Your task to perform on an android device: see creations saved in the google photos Image 0: 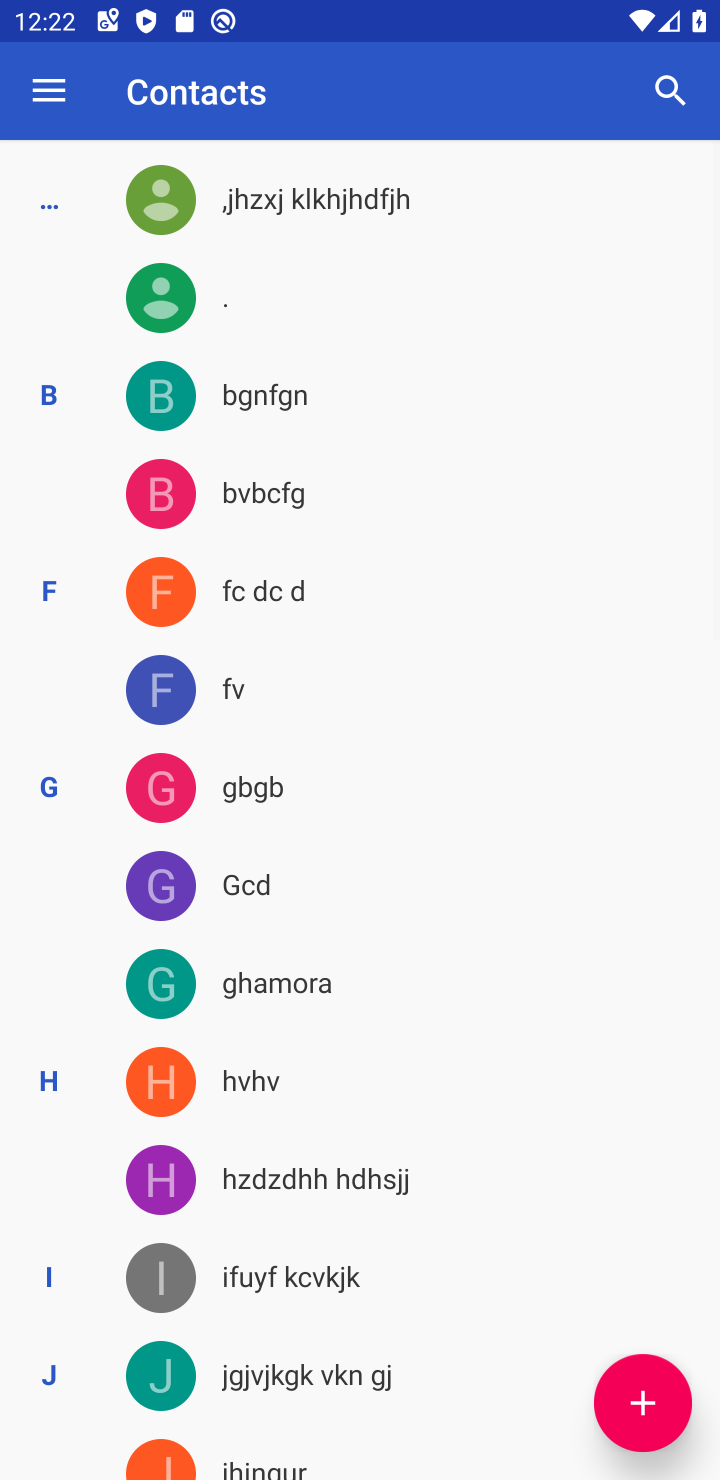
Step 0: press home button
Your task to perform on an android device: see creations saved in the google photos Image 1: 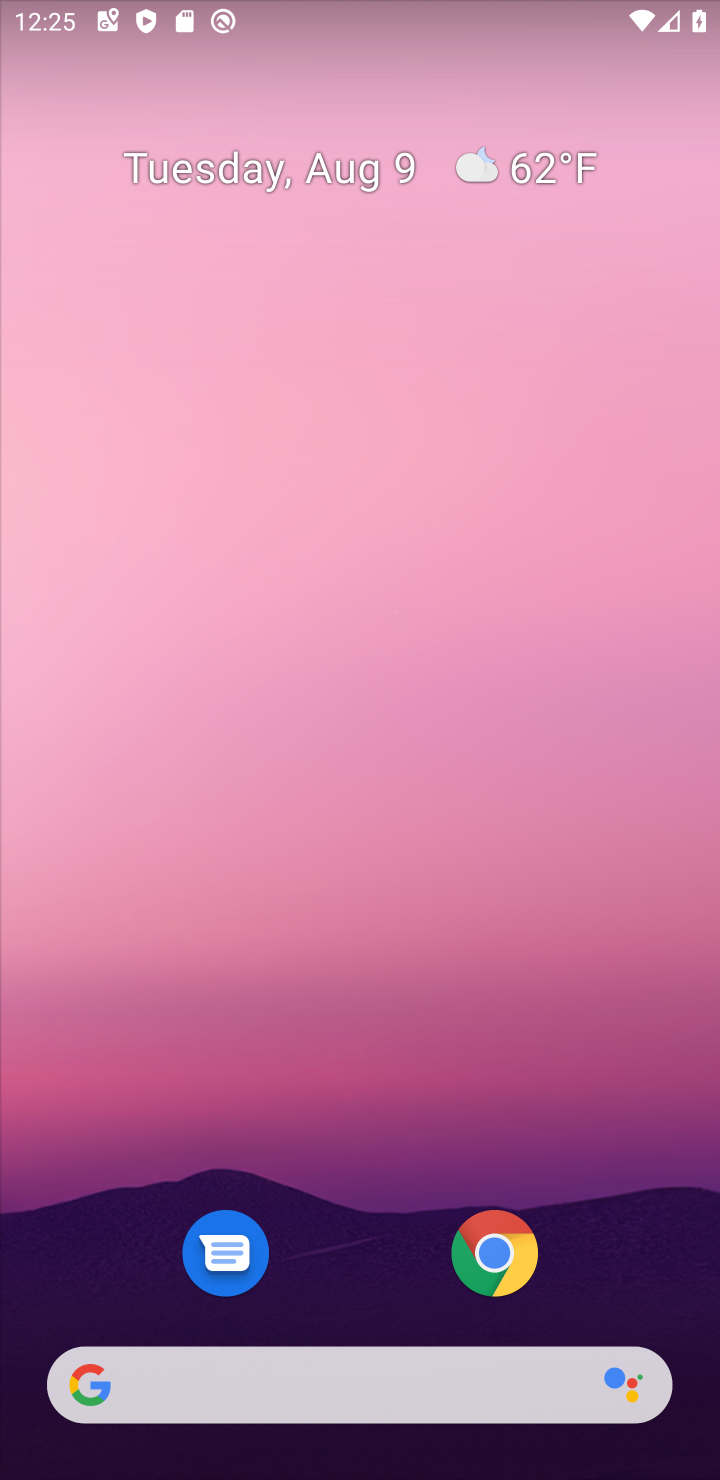
Step 1: drag from (656, 1267) to (395, 10)
Your task to perform on an android device: see creations saved in the google photos Image 2: 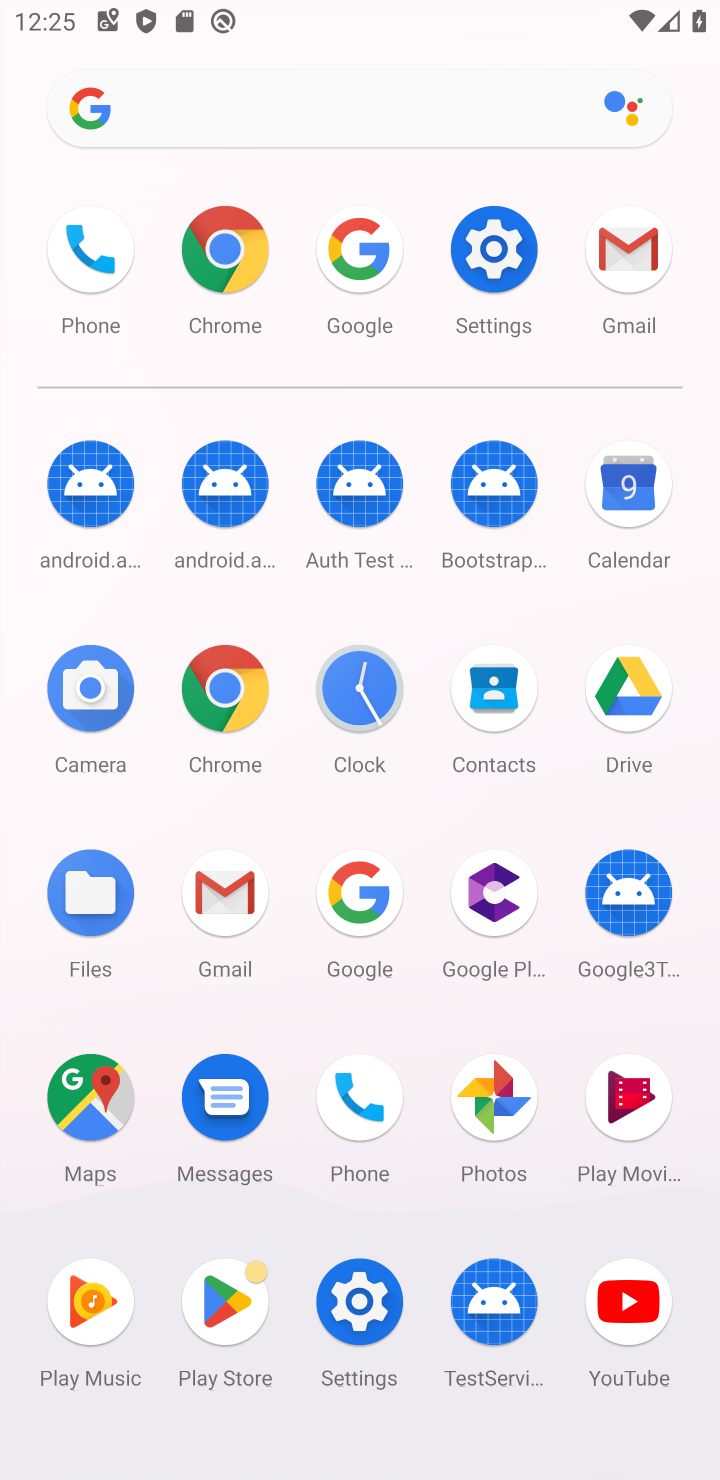
Step 2: click (493, 1079)
Your task to perform on an android device: see creations saved in the google photos Image 3: 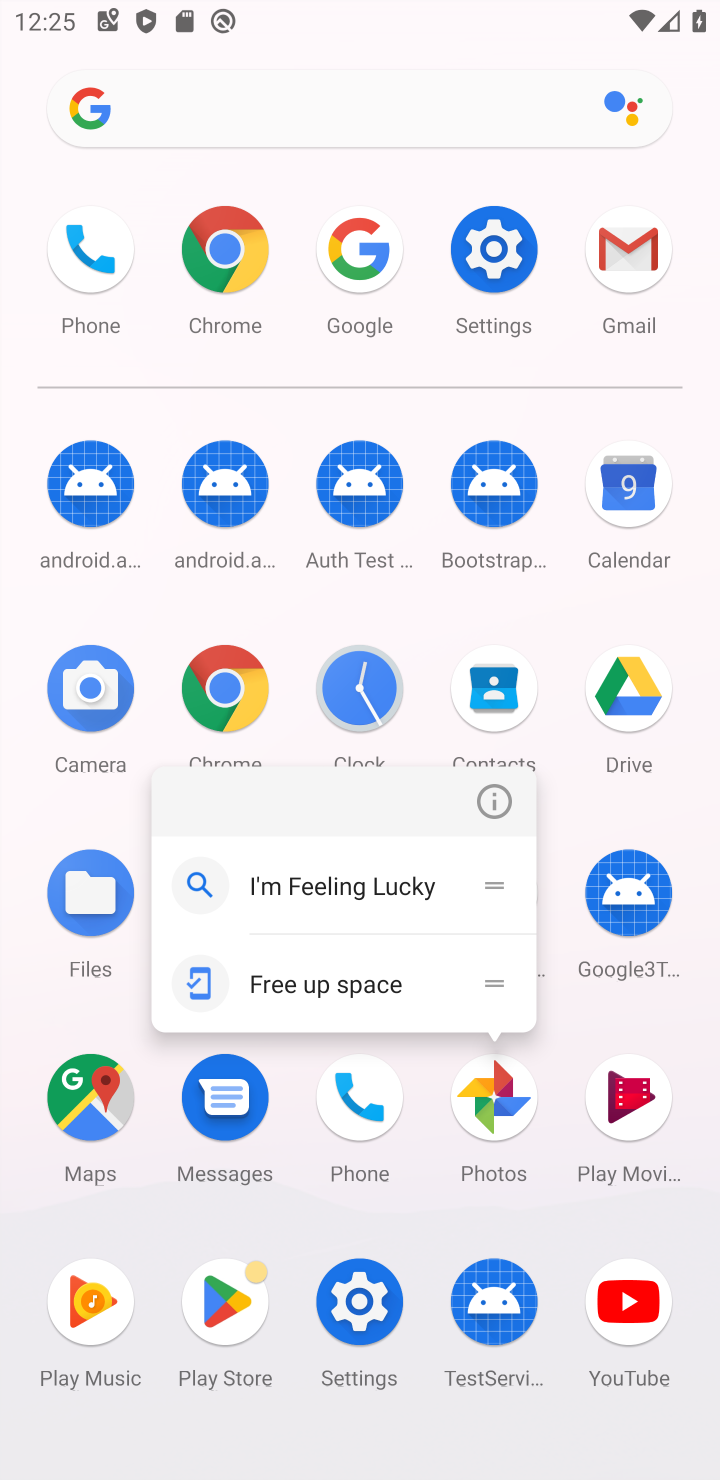
Step 3: click (471, 1082)
Your task to perform on an android device: see creations saved in the google photos Image 4: 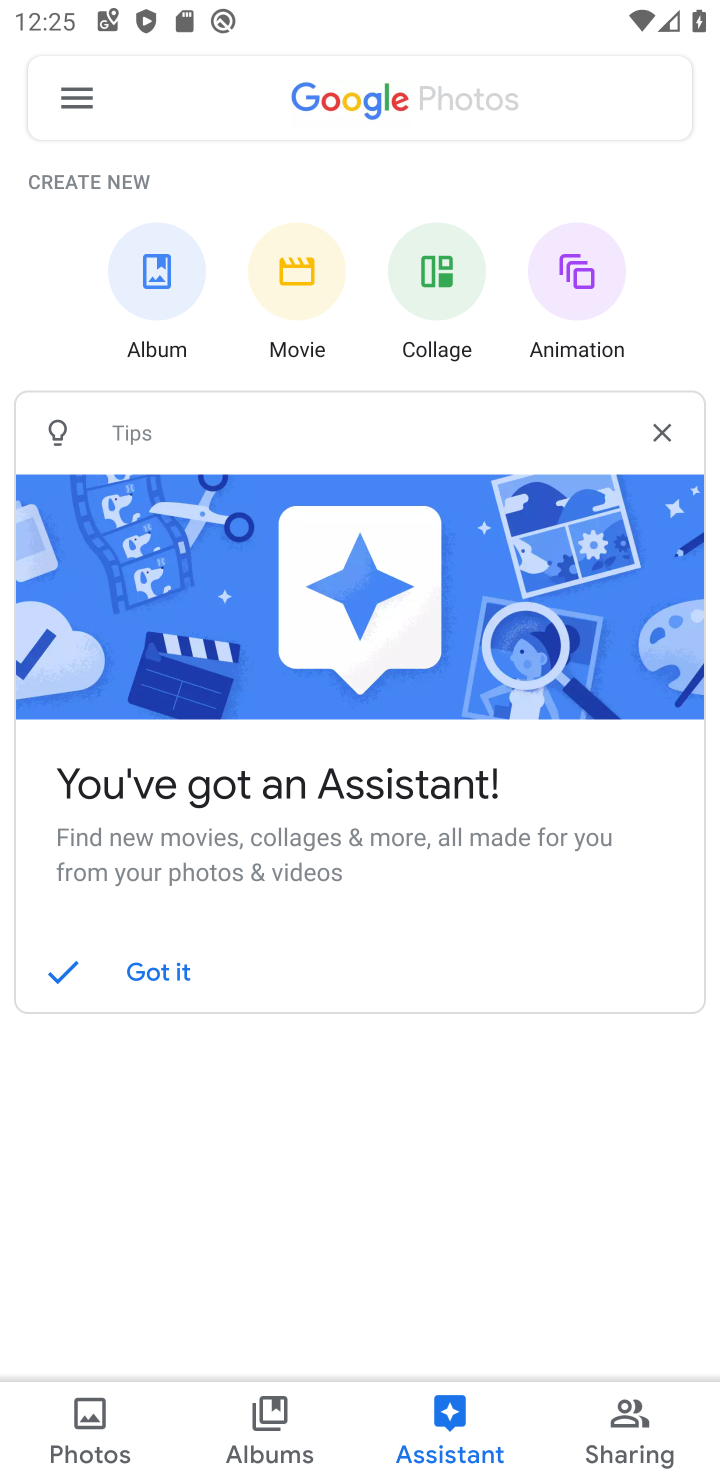
Step 4: click (284, 99)
Your task to perform on an android device: see creations saved in the google photos Image 5: 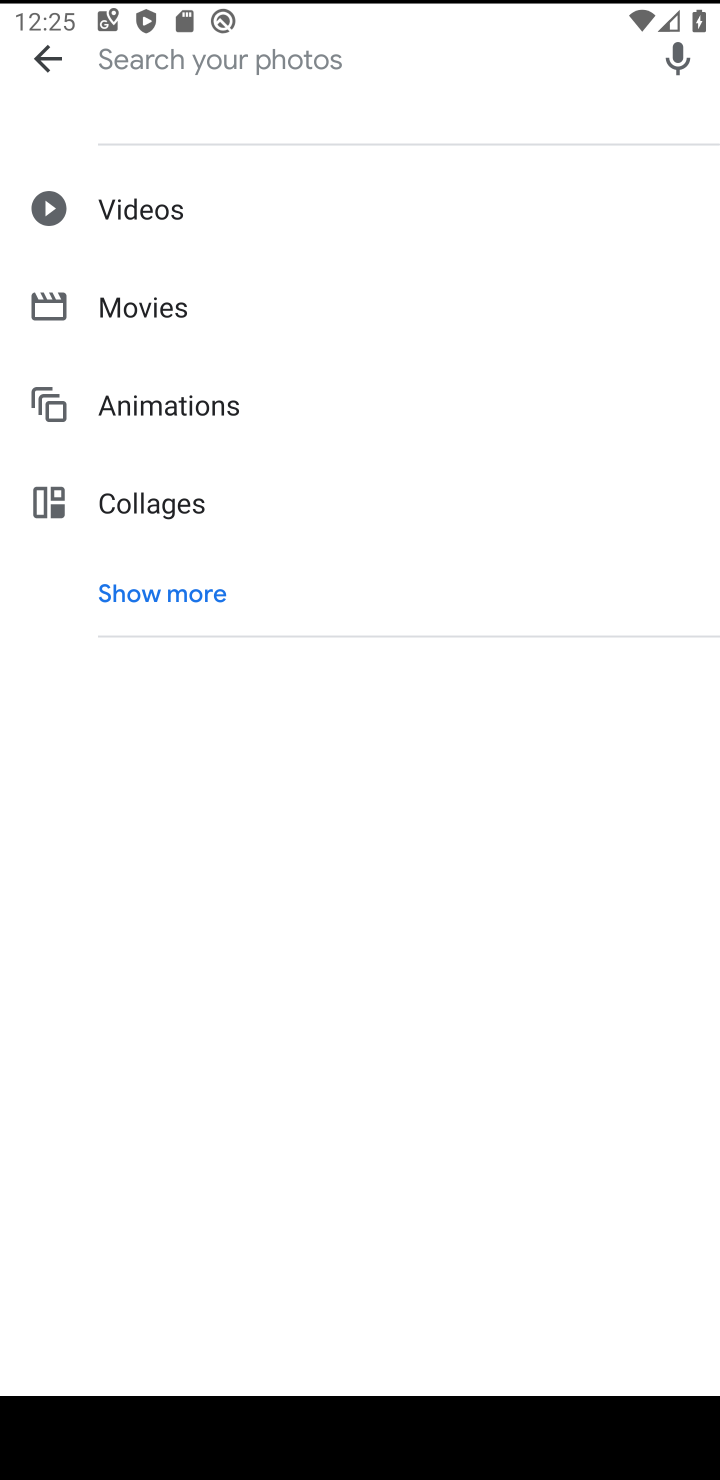
Step 5: click (184, 596)
Your task to perform on an android device: see creations saved in the google photos Image 6: 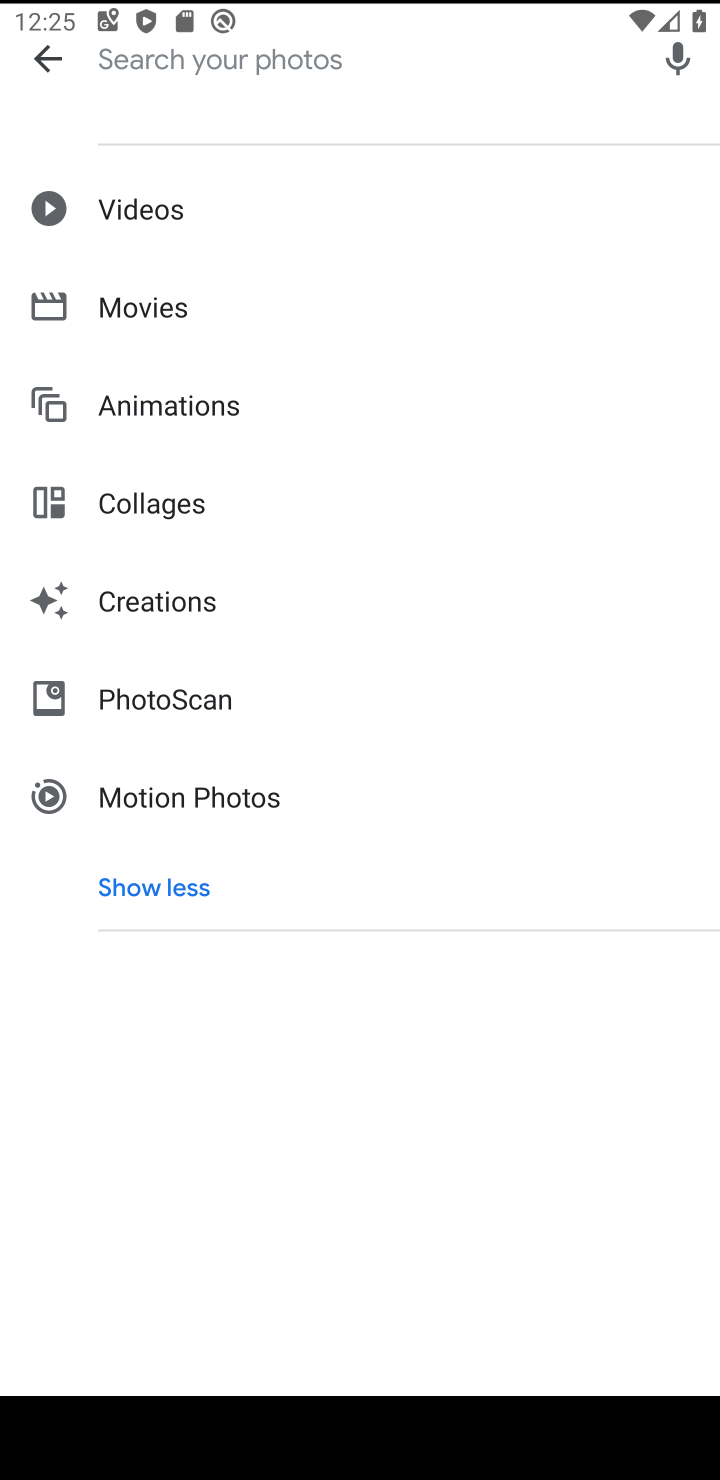
Step 6: click (133, 594)
Your task to perform on an android device: see creations saved in the google photos Image 7: 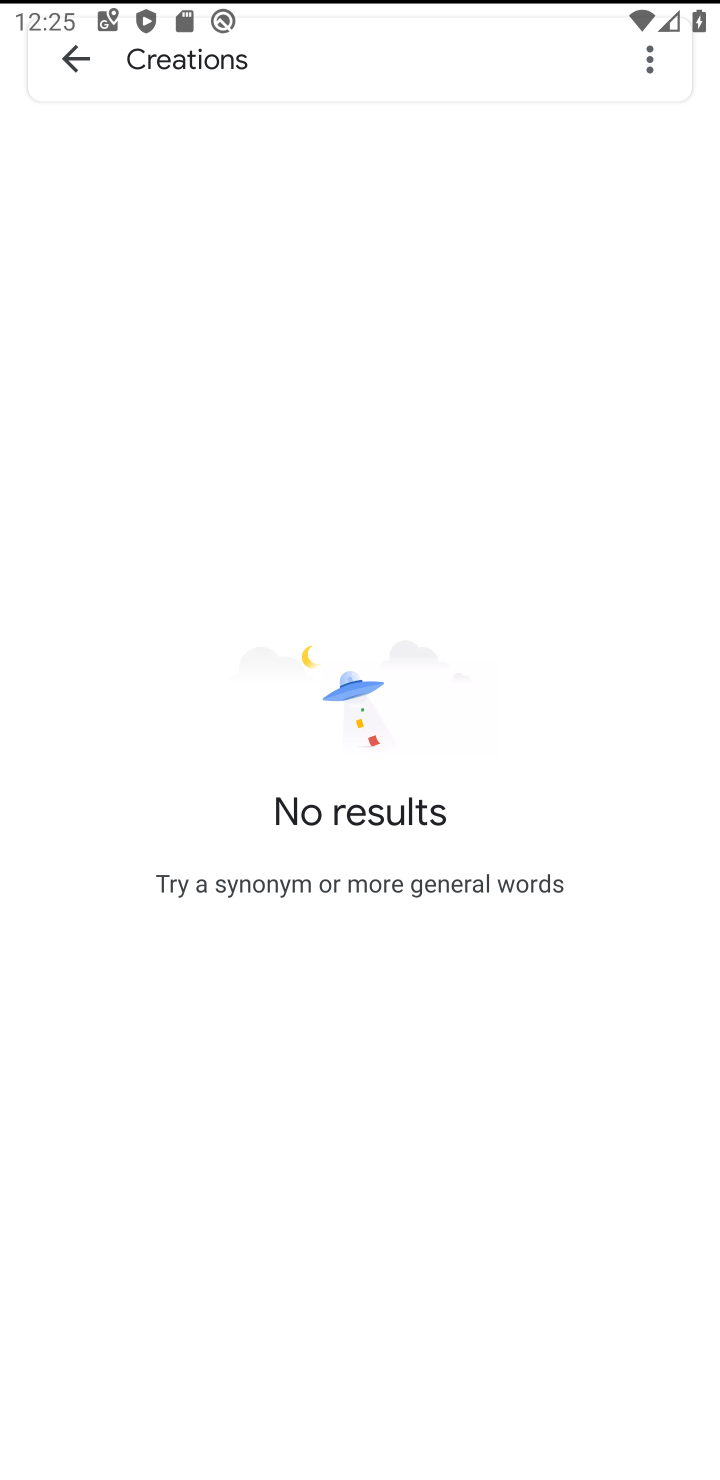
Step 7: task complete